Your task to perform on an android device: What's on my calendar today? Image 0: 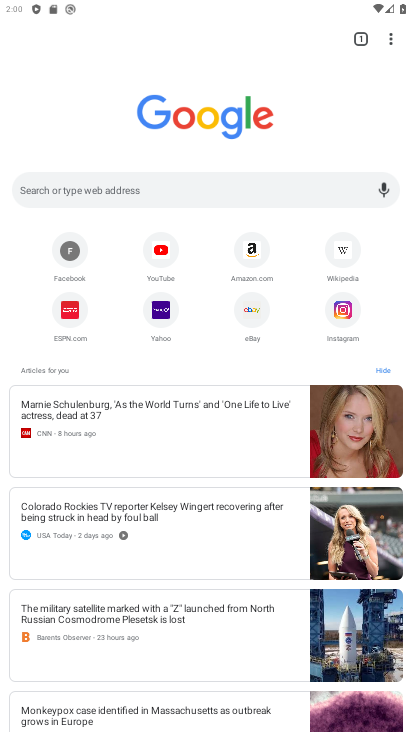
Step 0: press home button
Your task to perform on an android device: What's on my calendar today? Image 1: 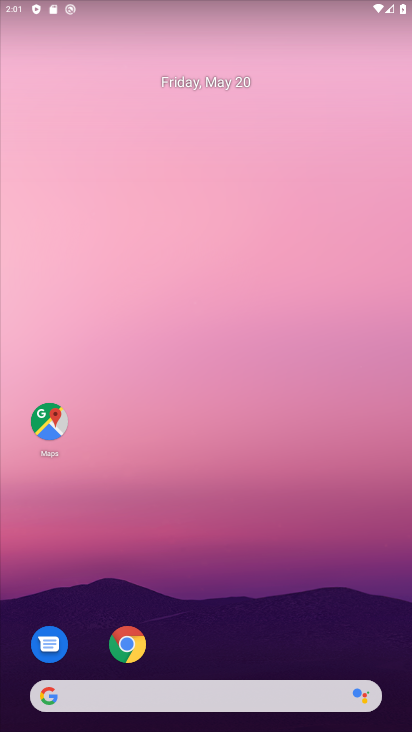
Step 1: drag from (196, 690) to (244, 537)
Your task to perform on an android device: What's on my calendar today? Image 2: 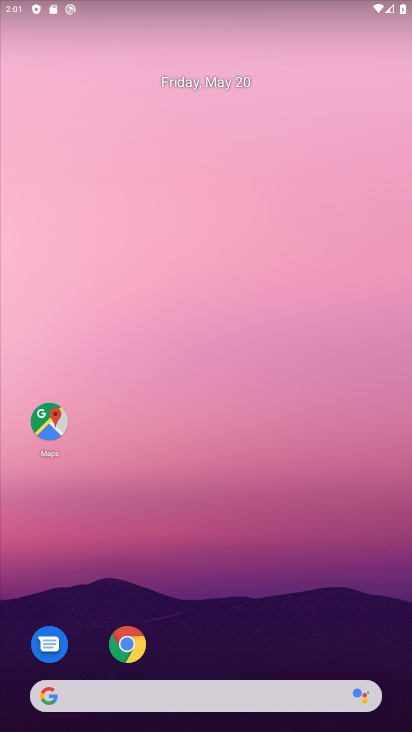
Step 2: drag from (224, 684) to (410, 49)
Your task to perform on an android device: What's on my calendar today? Image 3: 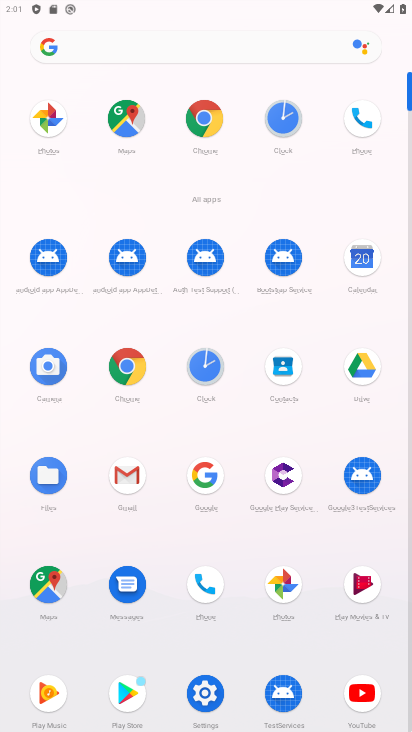
Step 3: click (363, 257)
Your task to perform on an android device: What's on my calendar today? Image 4: 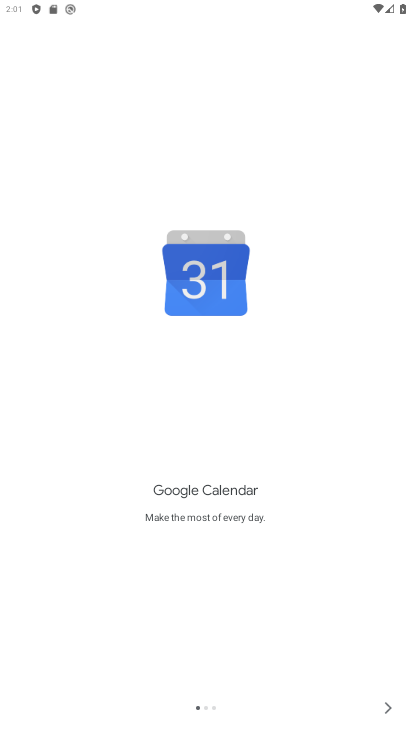
Step 4: click (391, 707)
Your task to perform on an android device: What's on my calendar today? Image 5: 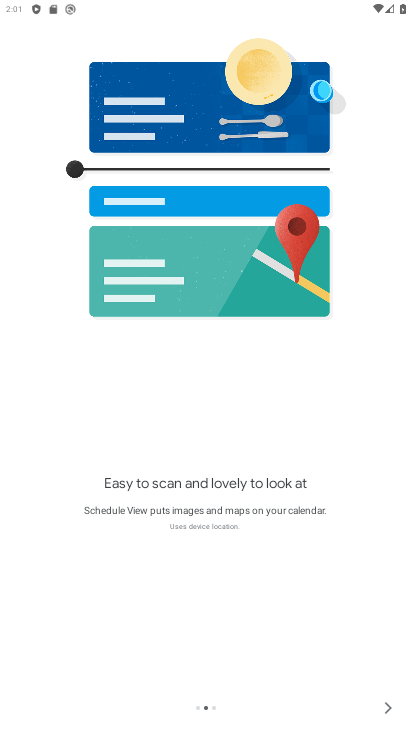
Step 5: click (391, 707)
Your task to perform on an android device: What's on my calendar today? Image 6: 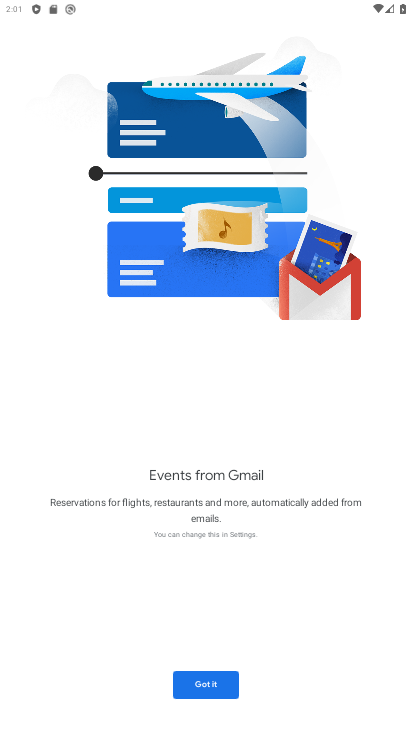
Step 6: click (391, 707)
Your task to perform on an android device: What's on my calendar today? Image 7: 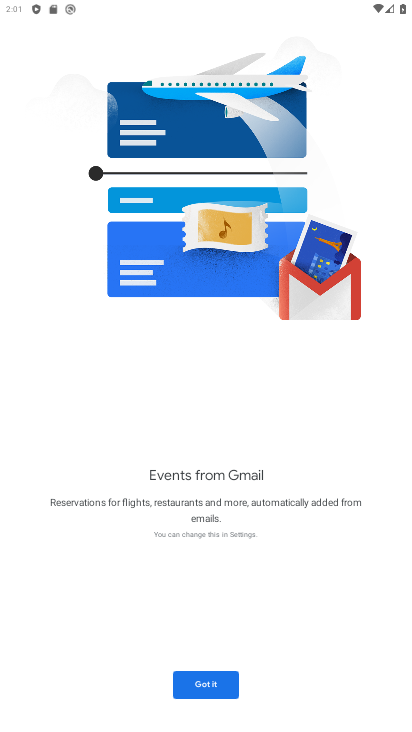
Step 7: click (231, 700)
Your task to perform on an android device: What's on my calendar today? Image 8: 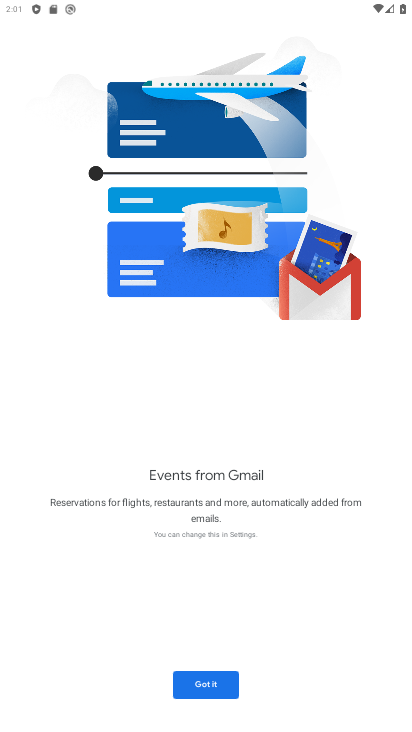
Step 8: click (227, 696)
Your task to perform on an android device: What's on my calendar today? Image 9: 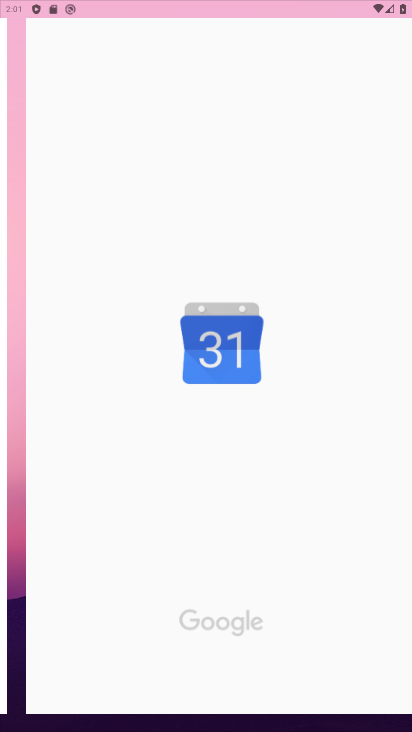
Step 9: click (211, 675)
Your task to perform on an android device: What's on my calendar today? Image 10: 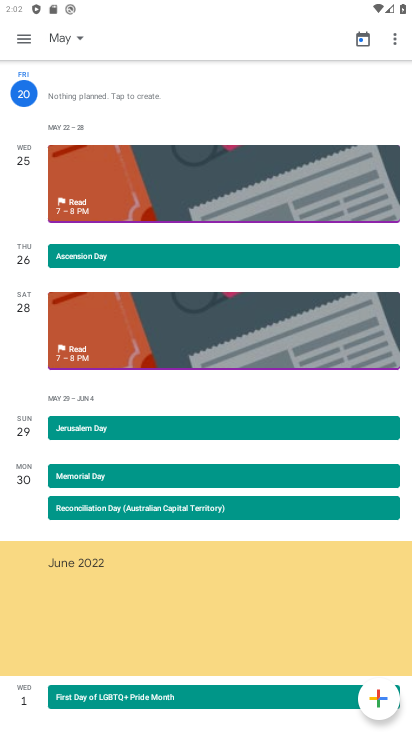
Step 10: click (33, 96)
Your task to perform on an android device: What's on my calendar today? Image 11: 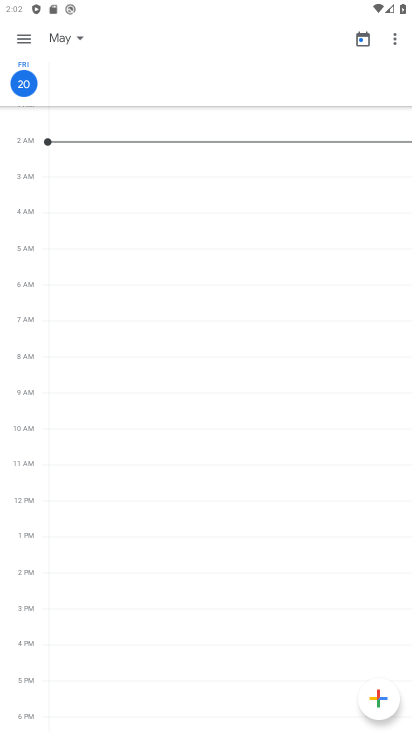
Step 11: task complete